Your task to perform on an android device: Open calendar and show me the first week of next month Image 0: 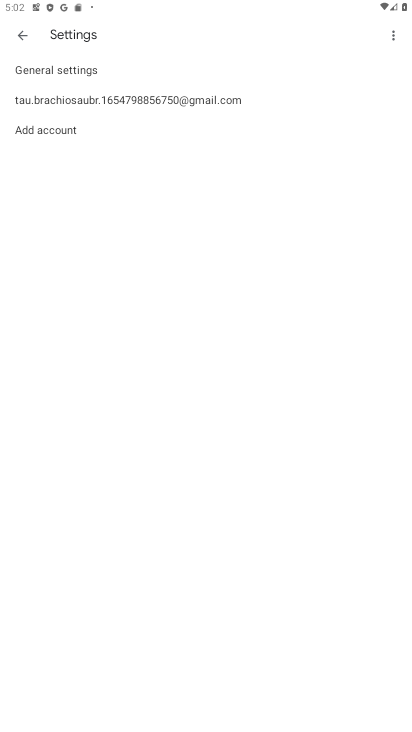
Step 0: press home button
Your task to perform on an android device: Open calendar and show me the first week of next month Image 1: 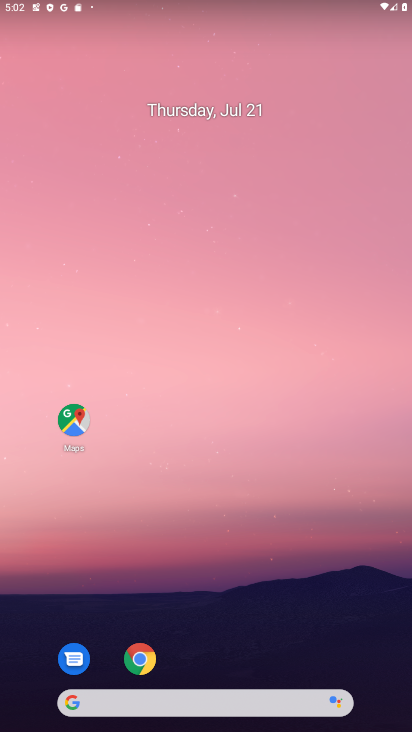
Step 1: drag from (229, 617) to (179, 96)
Your task to perform on an android device: Open calendar and show me the first week of next month Image 2: 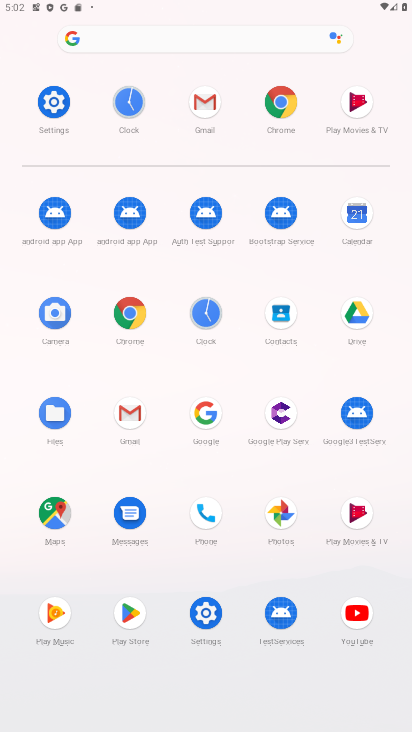
Step 2: click (359, 209)
Your task to perform on an android device: Open calendar and show me the first week of next month Image 3: 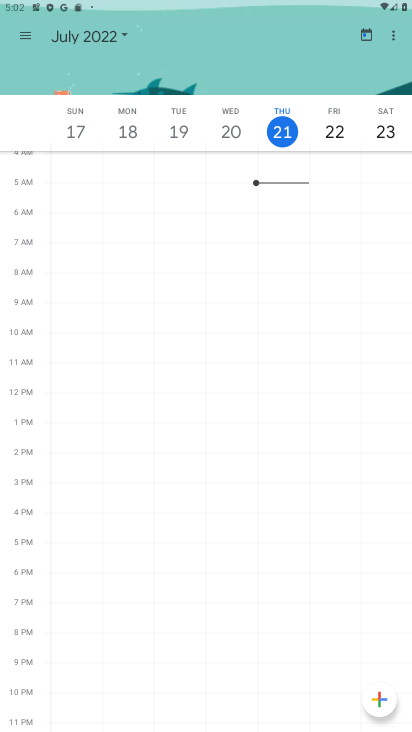
Step 3: click (28, 37)
Your task to perform on an android device: Open calendar and show me the first week of next month Image 4: 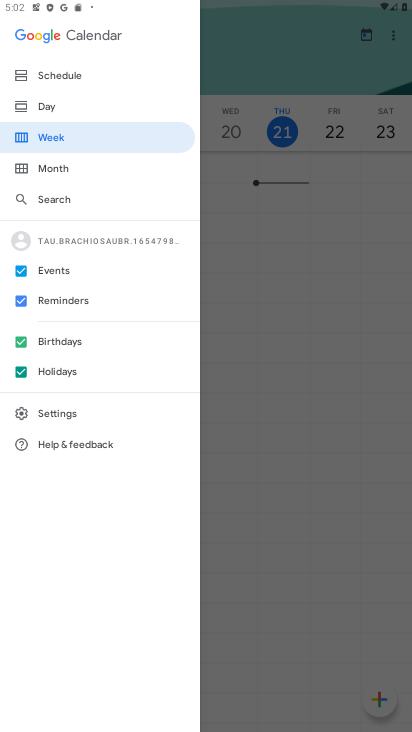
Step 4: click (55, 131)
Your task to perform on an android device: Open calendar and show me the first week of next month Image 5: 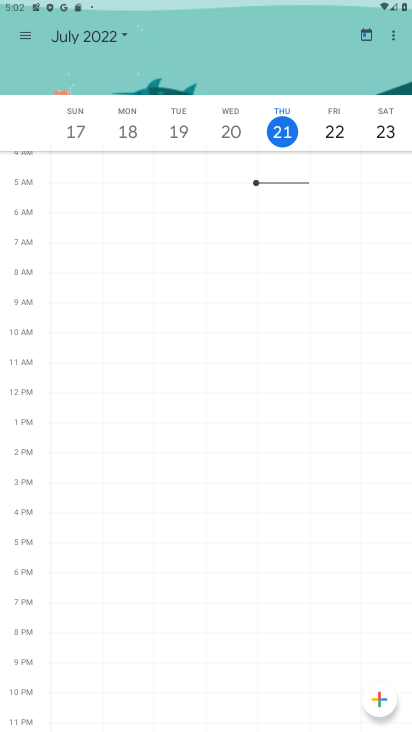
Step 5: click (117, 39)
Your task to perform on an android device: Open calendar and show me the first week of next month Image 6: 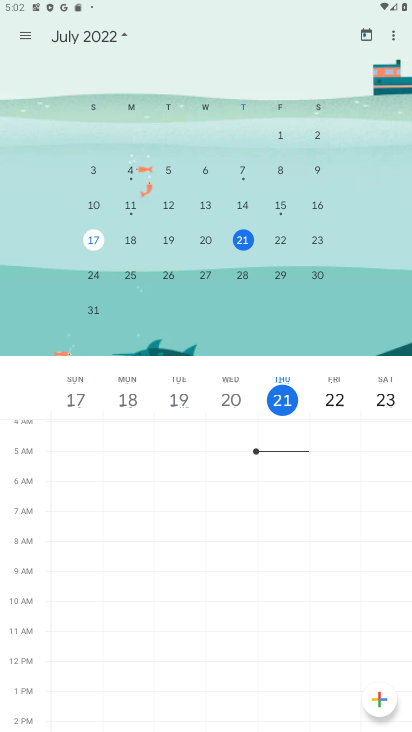
Step 6: drag from (338, 210) to (57, 162)
Your task to perform on an android device: Open calendar and show me the first week of next month Image 7: 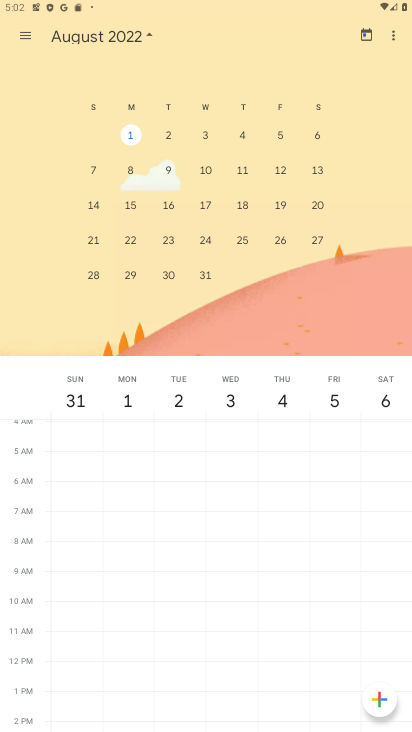
Step 7: click (167, 128)
Your task to perform on an android device: Open calendar and show me the first week of next month Image 8: 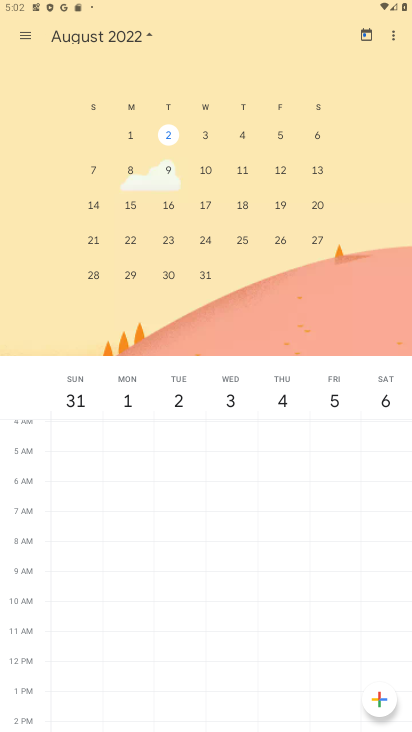
Step 8: task complete